Your task to perform on an android device: Go to network settings Image 0: 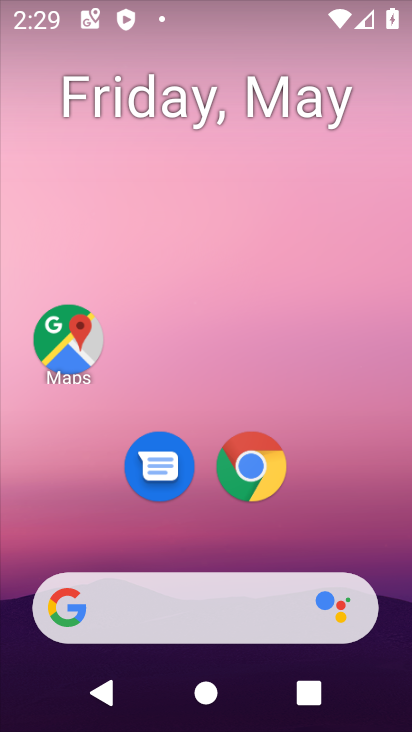
Step 0: drag from (211, 473) to (284, 42)
Your task to perform on an android device: Go to network settings Image 1: 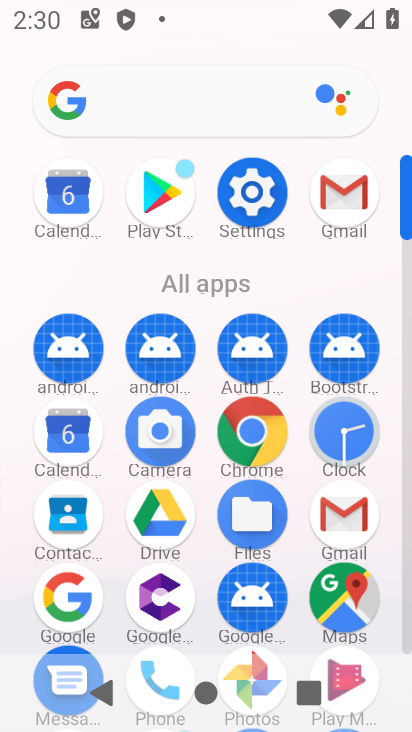
Step 1: click (262, 174)
Your task to perform on an android device: Go to network settings Image 2: 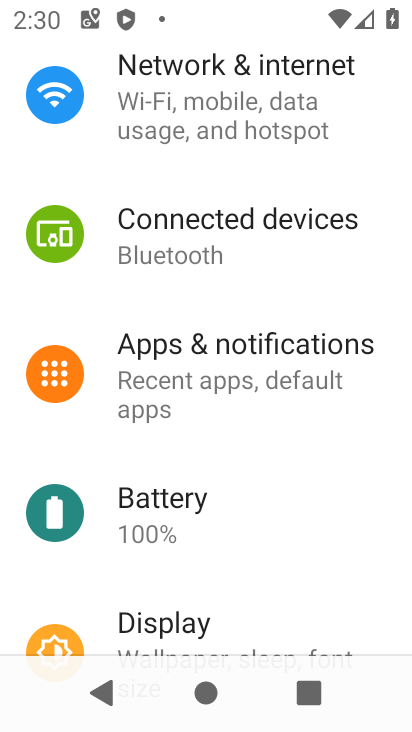
Step 2: click (221, 93)
Your task to perform on an android device: Go to network settings Image 3: 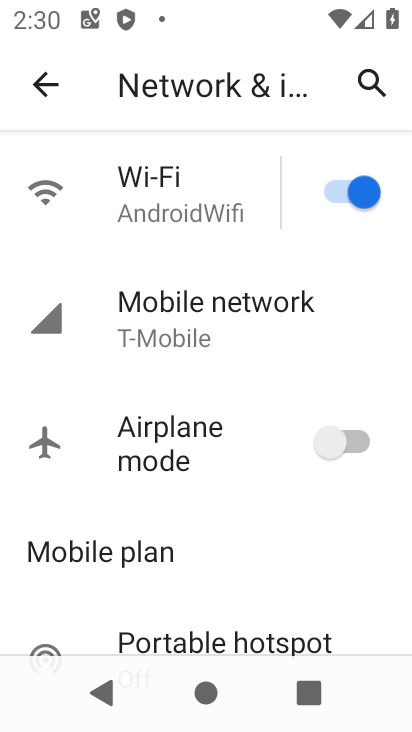
Step 3: task complete